Your task to perform on an android device: see tabs open on other devices in the chrome app Image 0: 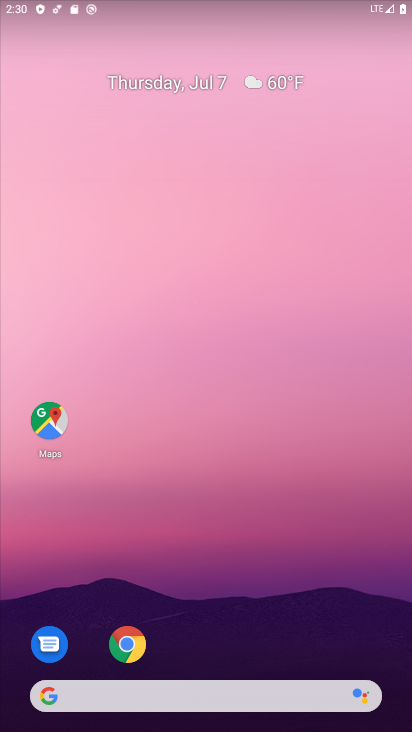
Step 0: drag from (228, 686) to (136, 8)
Your task to perform on an android device: see tabs open on other devices in the chrome app Image 1: 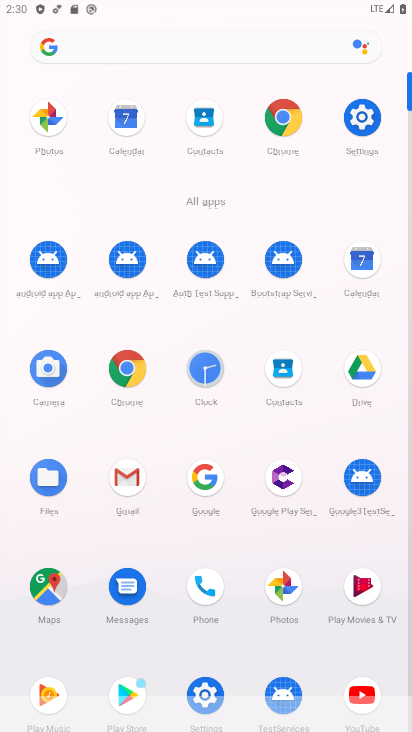
Step 1: click (297, 124)
Your task to perform on an android device: see tabs open on other devices in the chrome app Image 2: 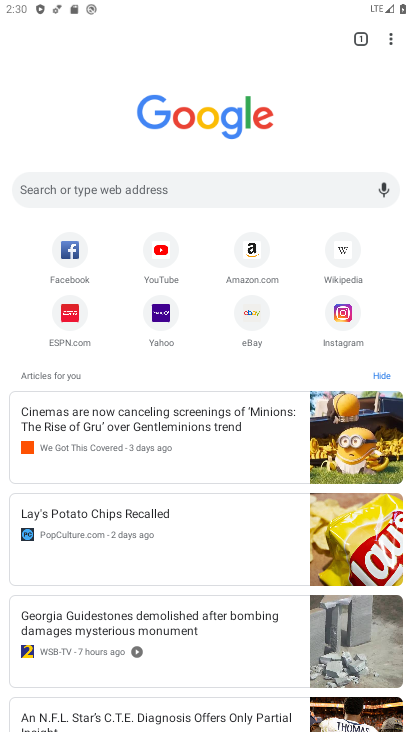
Step 2: task complete